Your task to perform on an android device: find snoozed emails in the gmail app Image 0: 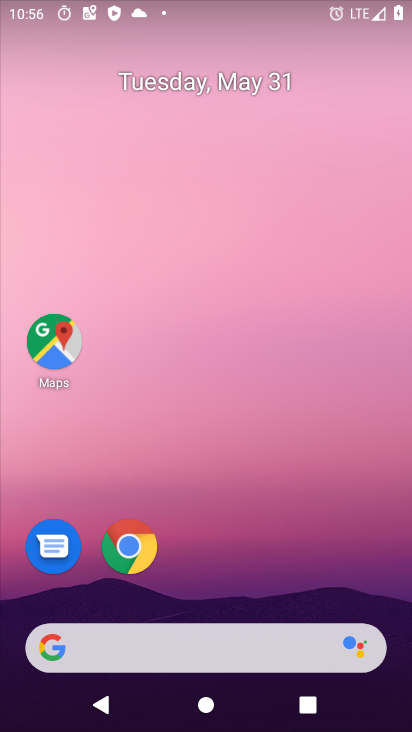
Step 0: drag from (196, 510) to (163, 116)
Your task to perform on an android device: find snoozed emails in the gmail app Image 1: 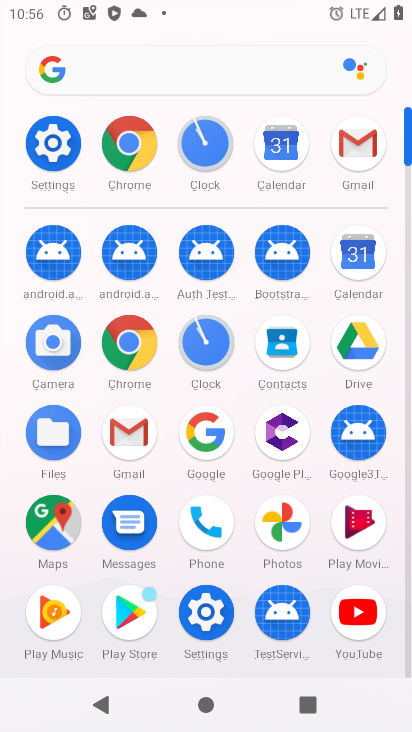
Step 1: click (127, 425)
Your task to perform on an android device: find snoozed emails in the gmail app Image 2: 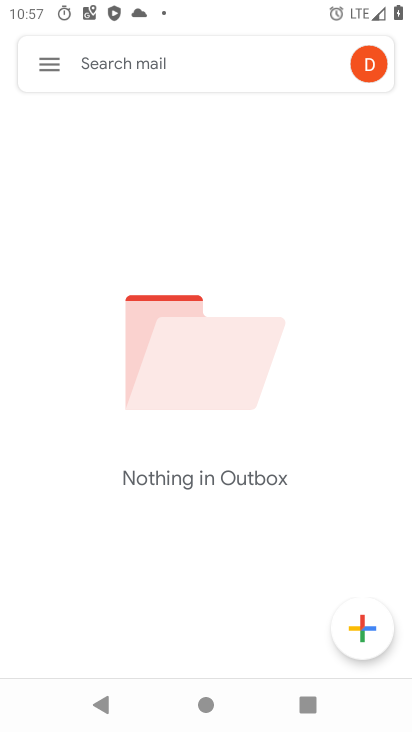
Step 2: click (47, 56)
Your task to perform on an android device: find snoozed emails in the gmail app Image 3: 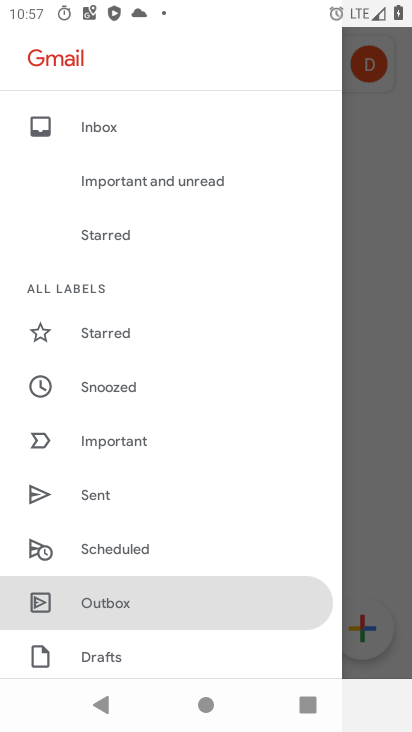
Step 3: click (132, 397)
Your task to perform on an android device: find snoozed emails in the gmail app Image 4: 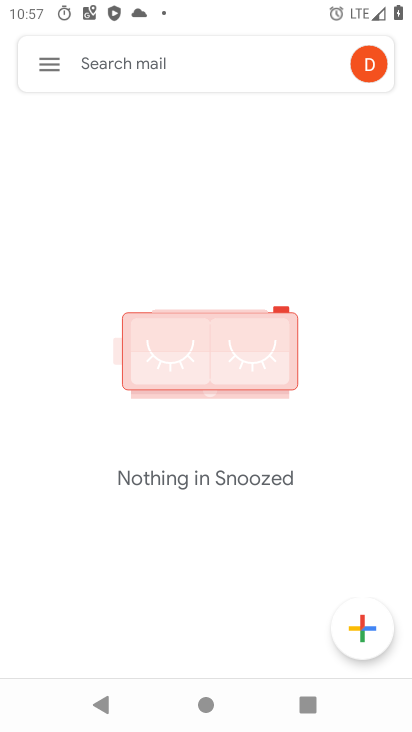
Step 4: press home button
Your task to perform on an android device: find snoozed emails in the gmail app Image 5: 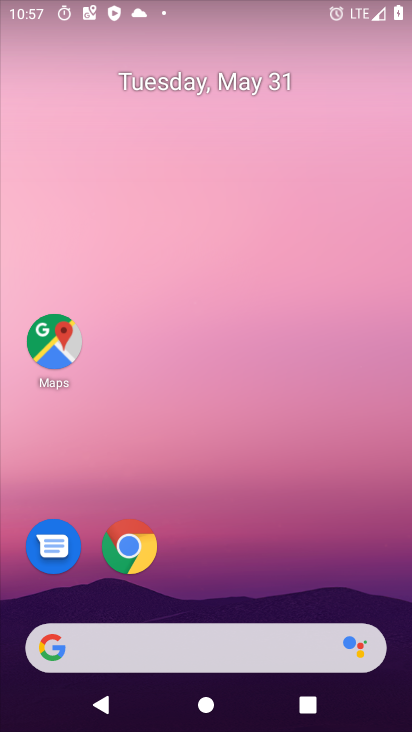
Step 5: click (281, 497)
Your task to perform on an android device: find snoozed emails in the gmail app Image 6: 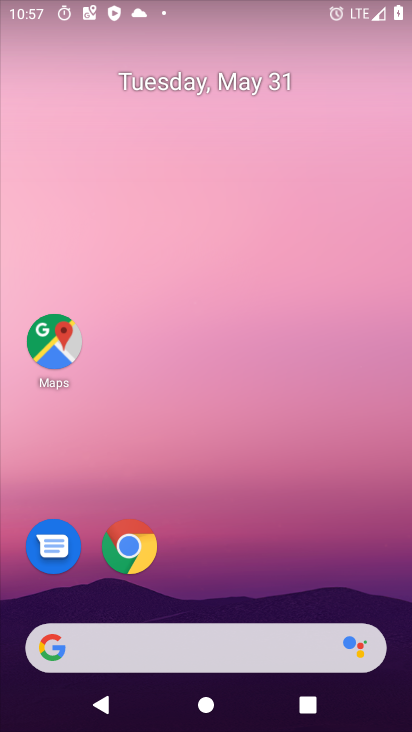
Step 6: drag from (267, 490) to (243, 223)
Your task to perform on an android device: find snoozed emails in the gmail app Image 7: 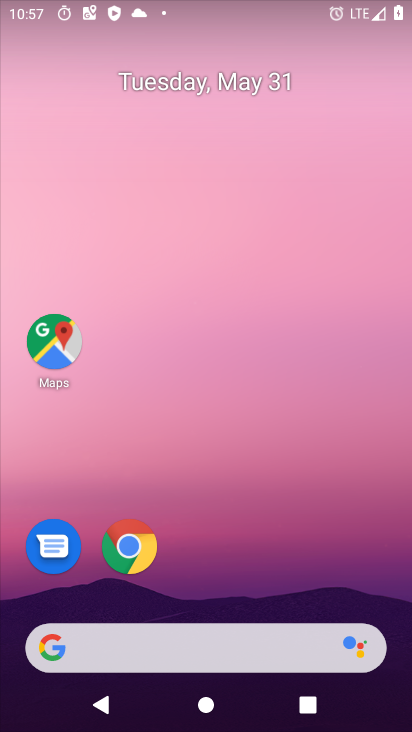
Step 7: drag from (229, 577) to (231, 256)
Your task to perform on an android device: find snoozed emails in the gmail app Image 8: 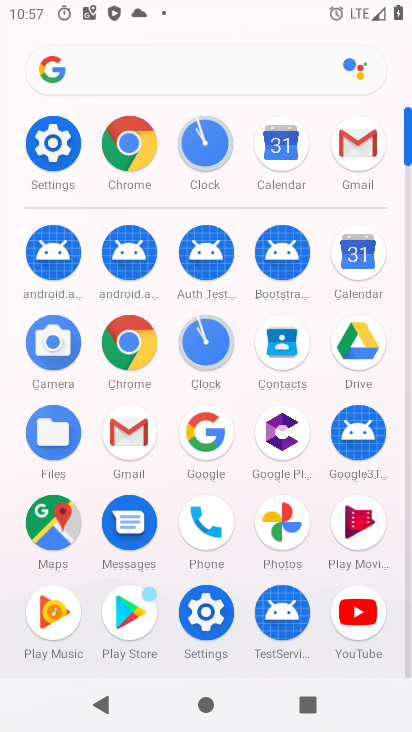
Step 8: click (350, 138)
Your task to perform on an android device: find snoozed emails in the gmail app Image 9: 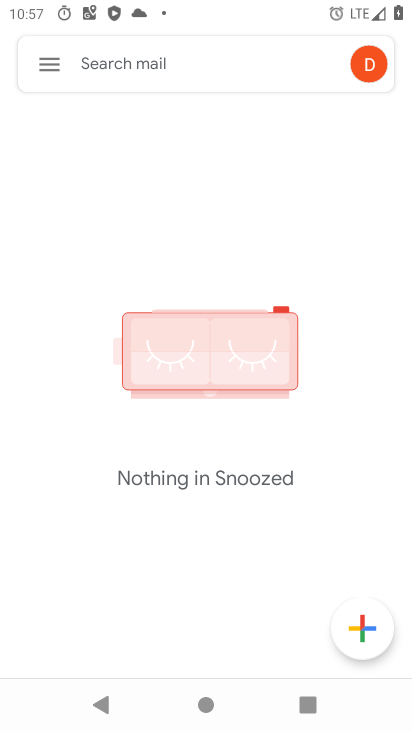
Step 9: click (40, 59)
Your task to perform on an android device: find snoozed emails in the gmail app Image 10: 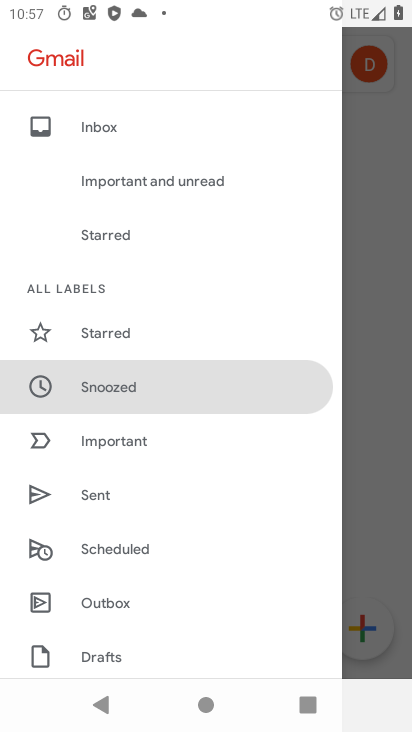
Step 10: click (163, 391)
Your task to perform on an android device: find snoozed emails in the gmail app Image 11: 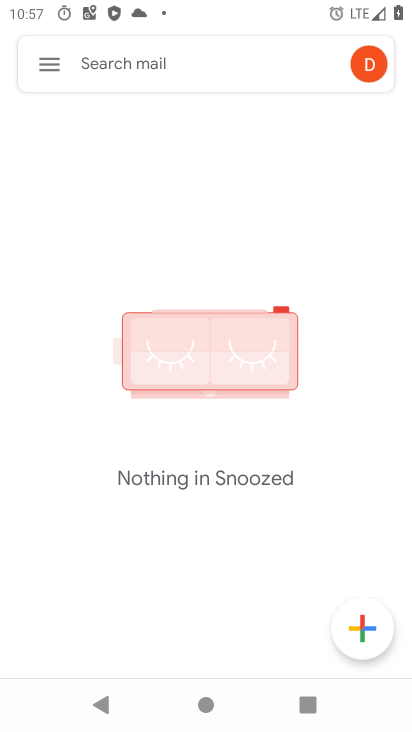
Step 11: task complete